Your task to perform on an android device: Clear the cart on costco. Add "logitech g933" to the cart on costco Image 0: 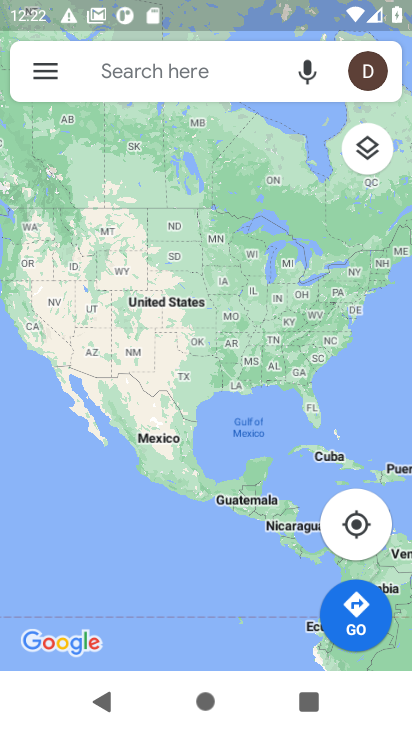
Step 0: press home button
Your task to perform on an android device: Clear the cart on costco. Add "logitech g933" to the cart on costco Image 1: 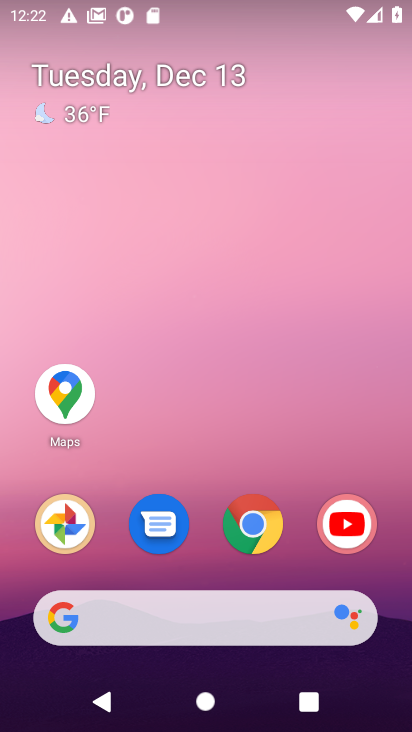
Step 1: click (259, 534)
Your task to perform on an android device: Clear the cart on costco. Add "logitech g933" to the cart on costco Image 2: 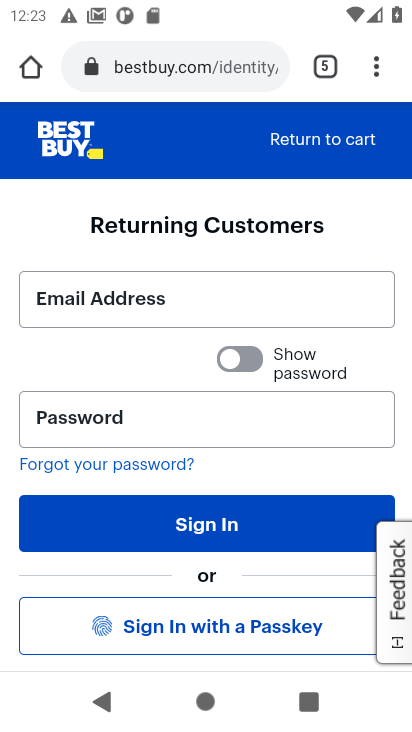
Step 2: click (186, 69)
Your task to perform on an android device: Clear the cart on costco. Add "logitech g933" to the cart on costco Image 3: 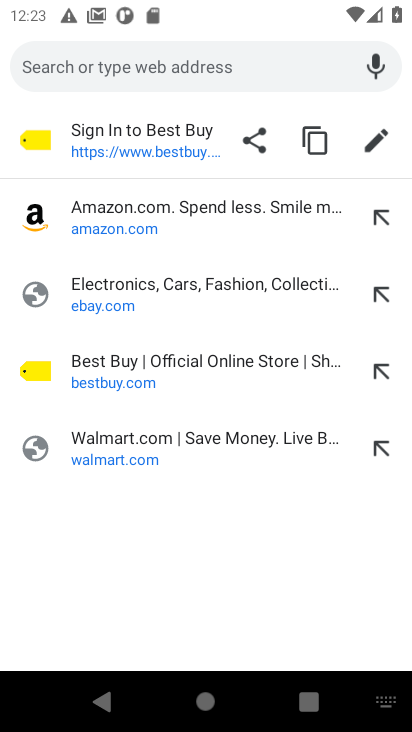
Step 3: type "costco.com"
Your task to perform on an android device: Clear the cart on costco. Add "logitech g933" to the cart on costco Image 4: 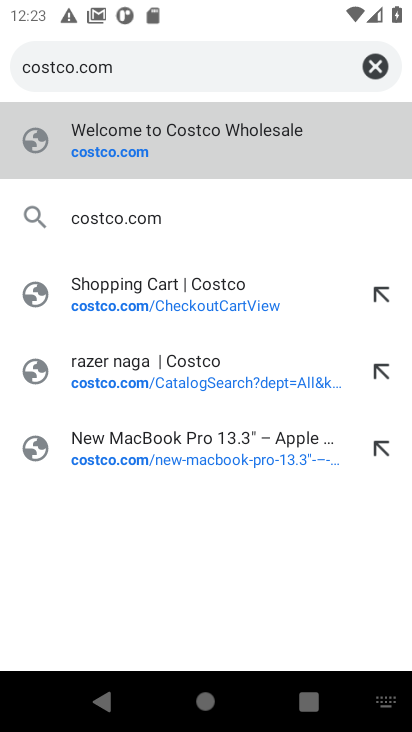
Step 4: click (101, 157)
Your task to perform on an android device: Clear the cart on costco. Add "logitech g933" to the cart on costco Image 5: 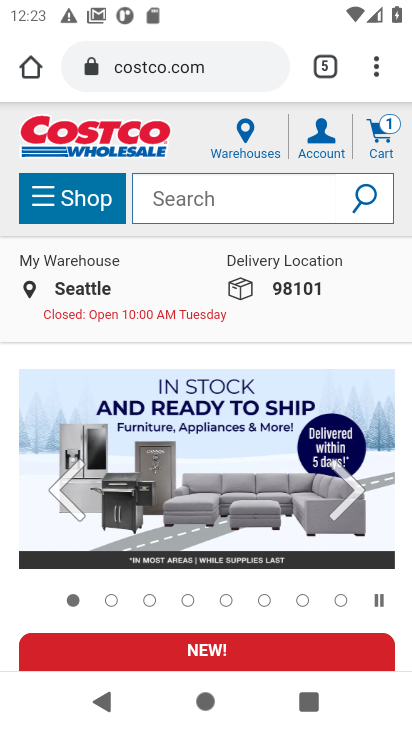
Step 5: click (377, 141)
Your task to perform on an android device: Clear the cart on costco. Add "logitech g933" to the cart on costco Image 6: 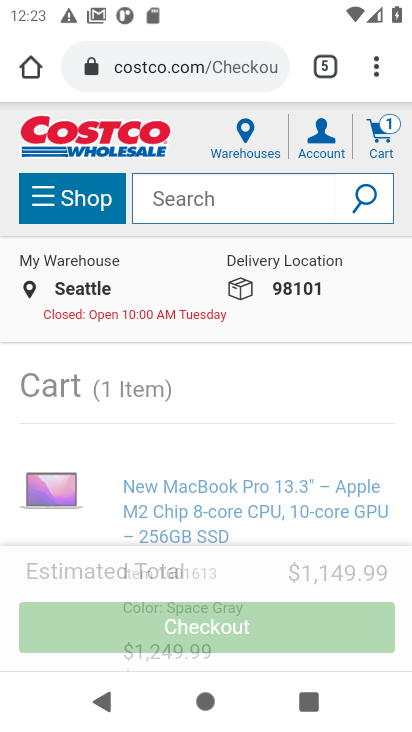
Step 6: drag from (223, 457) to (237, 194)
Your task to perform on an android device: Clear the cart on costco. Add "logitech g933" to the cart on costco Image 7: 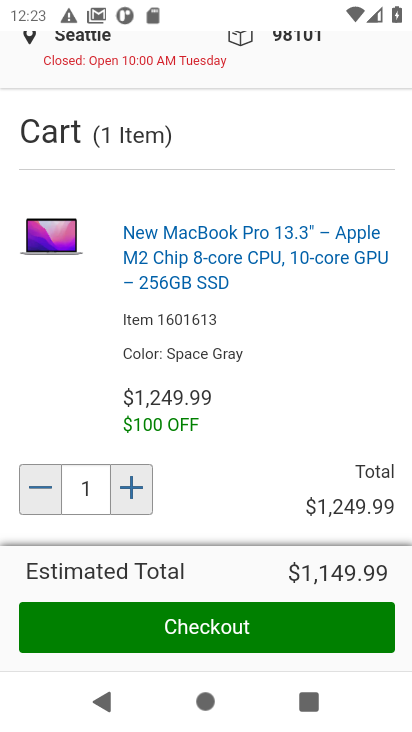
Step 7: drag from (237, 442) to (237, 185)
Your task to perform on an android device: Clear the cart on costco. Add "logitech g933" to the cart on costco Image 8: 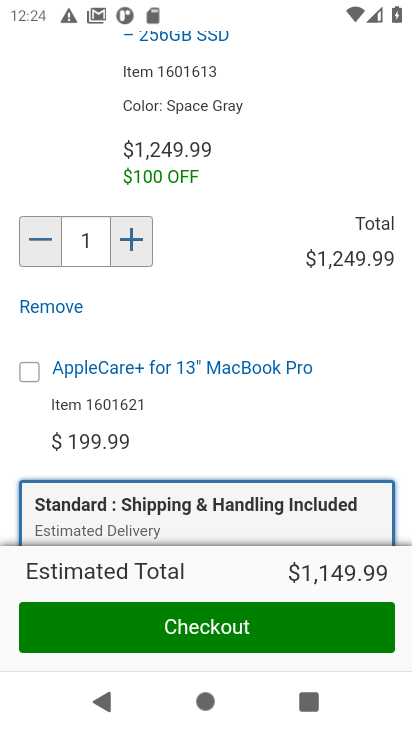
Step 8: drag from (215, 452) to (226, 195)
Your task to perform on an android device: Clear the cart on costco. Add "logitech g933" to the cart on costco Image 9: 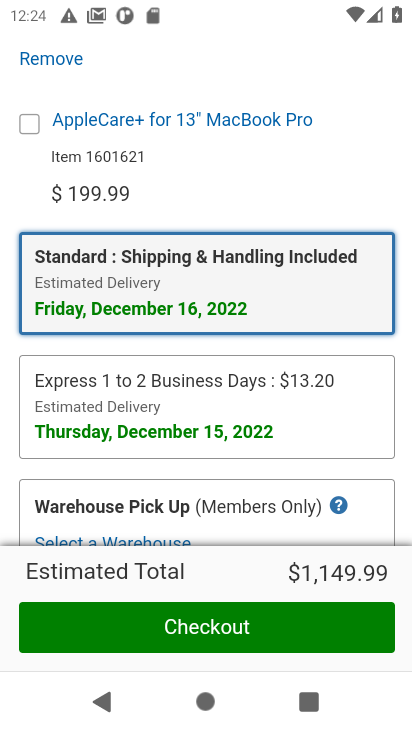
Step 9: drag from (249, 401) to (250, 202)
Your task to perform on an android device: Clear the cart on costco. Add "logitech g933" to the cart on costco Image 10: 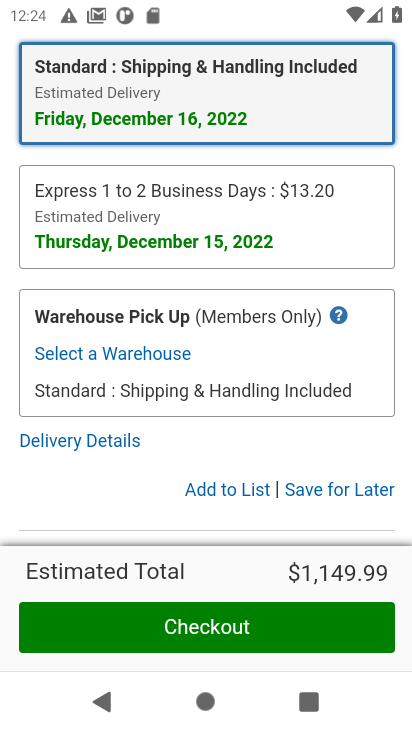
Step 10: click (313, 488)
Your task to perform on an android device: Clear the cart on costco. Add "logitech g933" to the cart on costco Image 11: 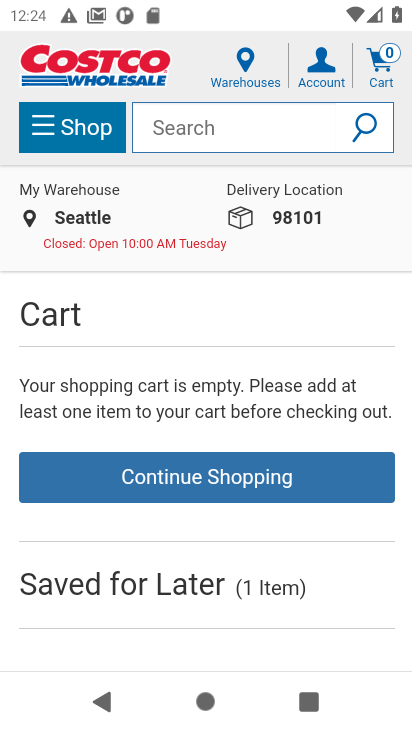
Step 11: click (195, 139)
Your task to perform on an android device: Clear the cart on costco. Add "logitech g933" to the cart on costco Image 12: 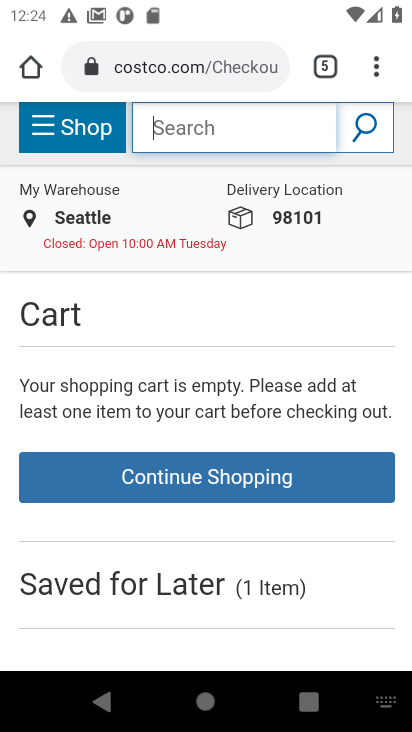
Step 12: type "logitech g933"
Your task to perform on an android device: Clear the cart on costco. Add "logitech g933" to the cart on costco Image 13: 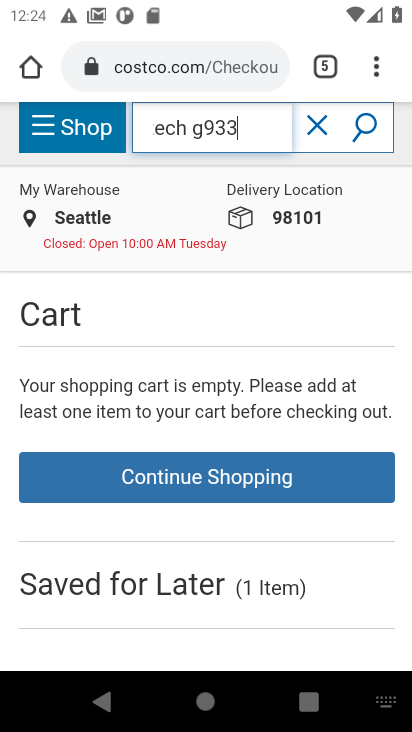
Step 13: click (356, 134)
Your task to perform on an android device: Clear the cart on costco. Add "logitech g933" to the cart on costco Image 14: 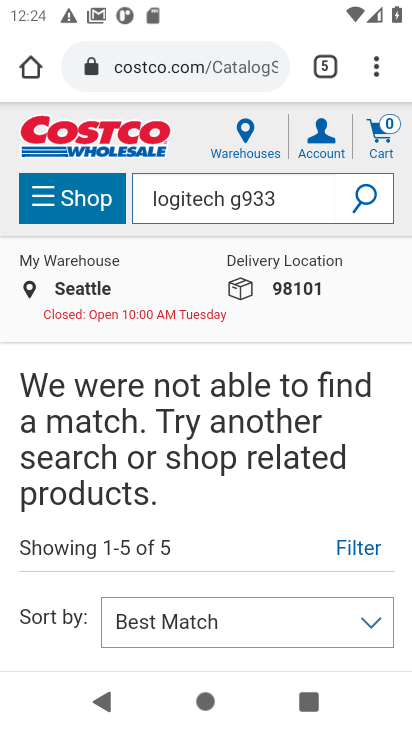
Step 14: task complete